Your task to perform on an android device: Do I have any events this weekend? Image 0: 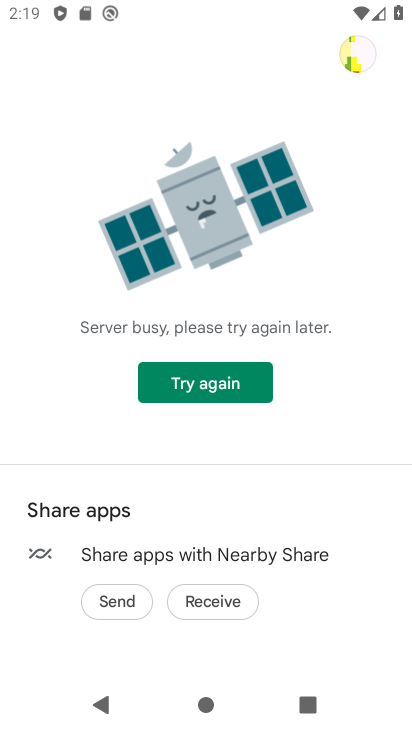
Step 0: press home button
Your task to perform on an android device: Do I have any events this weekend? Image 1: 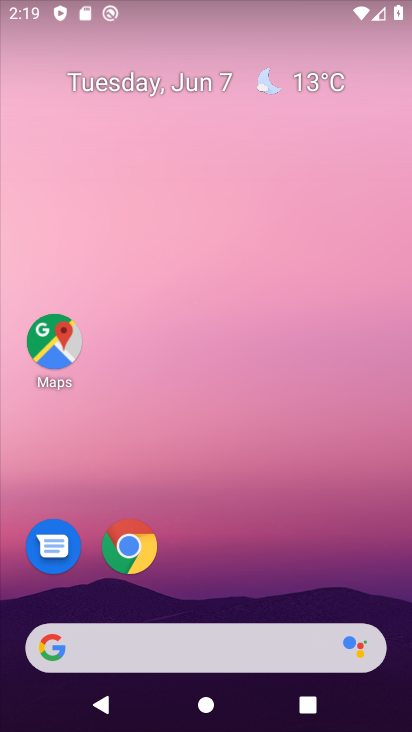
Step 1: drag from (346, 580) to (349, 184)
Your task to perform on an android device: Do I have any events this weekend? Image 2: 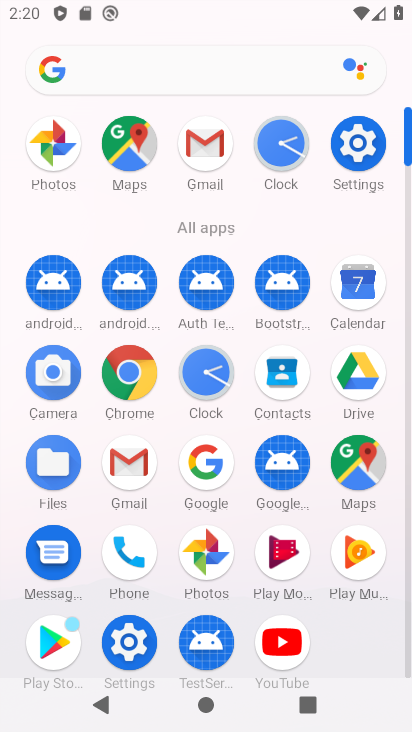
Step 2: click (363, 312)
Your task to perform on an android device: Do I have any events this weekend? Image 3: 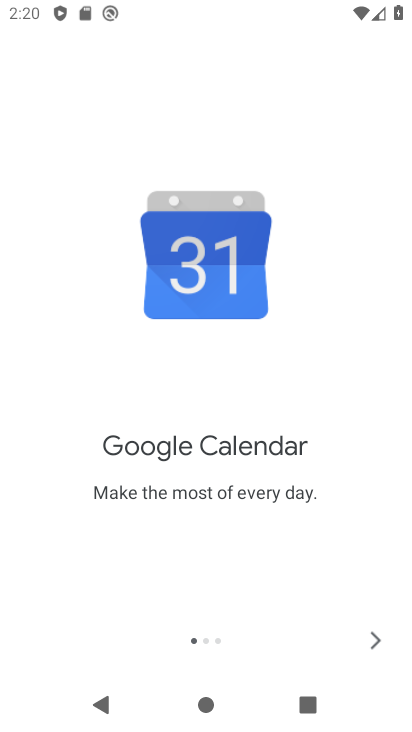
Step 3: click (375, 647)
Your task to perform on an android device: Do I have any events this weekend? Image 4: 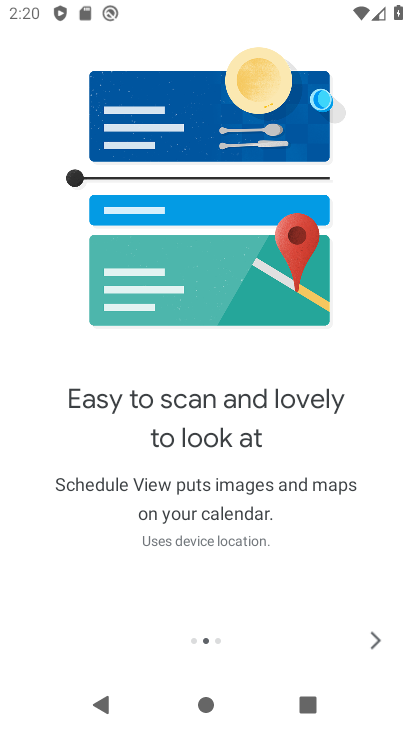
Step 4: click (375, 647)
Your task to perform on an android device: Do I have any events this weekend? Image 5: 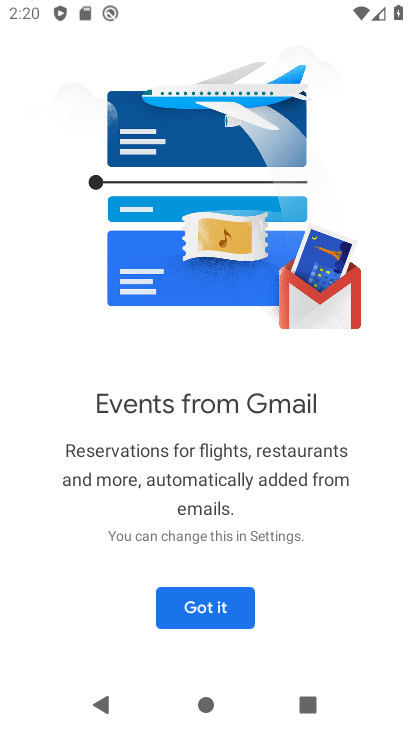
Step 5: click (235, 617)
Your task to perform on an android device: Do I have any events this weekend? Image 6: 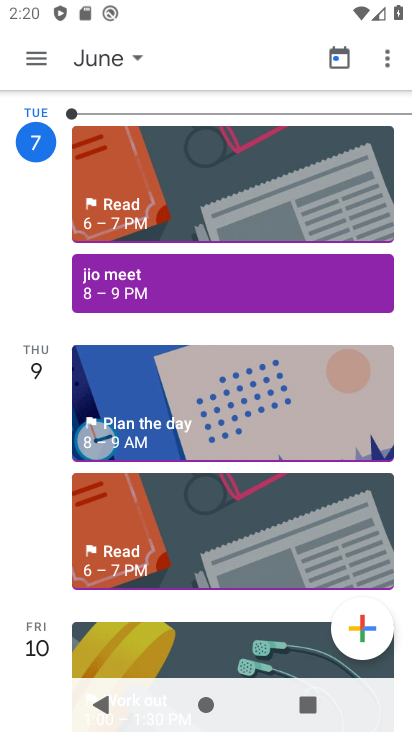
Step 6: drag from (233, 391) to (237, 203)
Your task to perform on an android device: Do I have any events this weekend? Image 7: 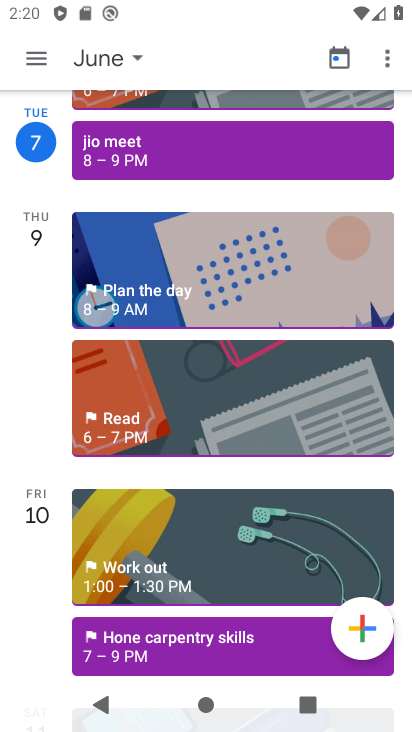
Step 7: drag from (274, 459) to (284, 182)
Your task to perform on an android device: Do I have any events this weekend? Image 8: 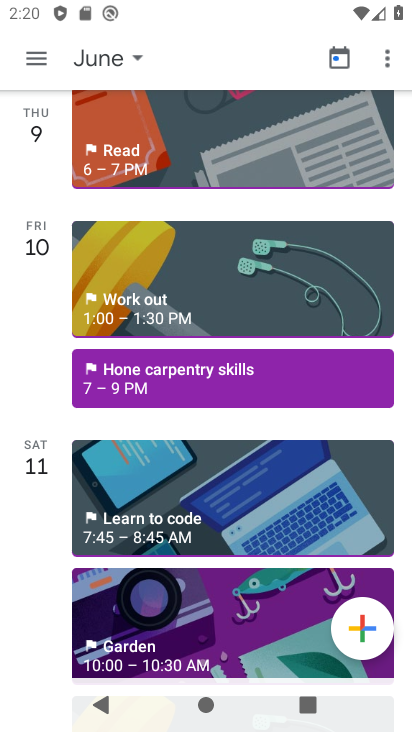
Step 8: drag from (258, 500) to (285, 186)
Your task to perform on an android device: Do I have any events this weekend? Image 9: 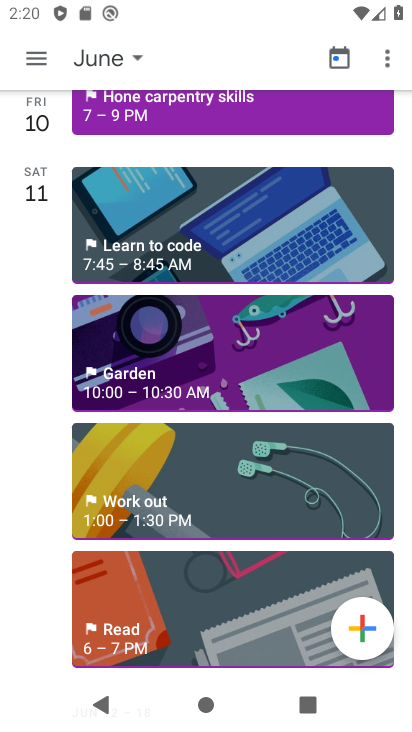
Step 9: click (240, 223)
Your task to perform on an android device: Do I have any events this weekend? Image 10: 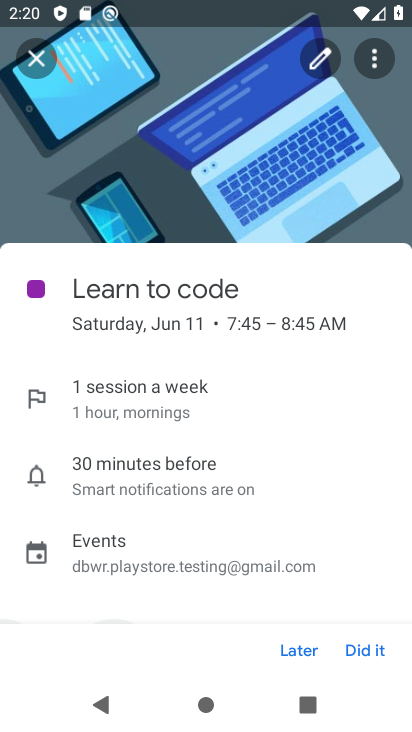
Step 10: task complete